Your task to perform on an android device: open chrome and create a bookmark for the current page Image 0: 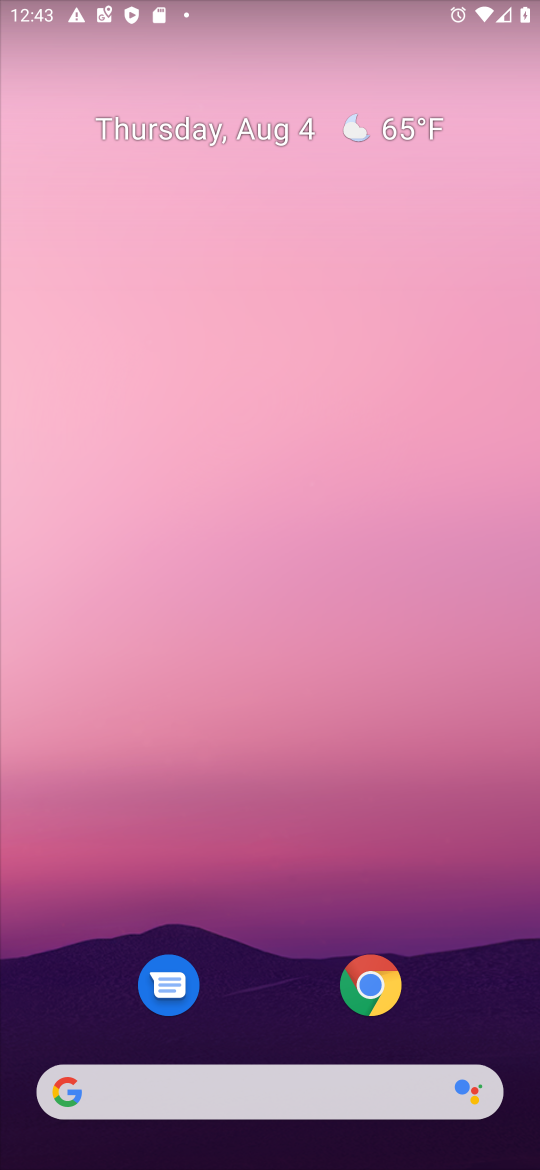
Step 0: click (384, 978)
Your task to perform on an android device: open chrome and create a bookmark for the current page Image 1: 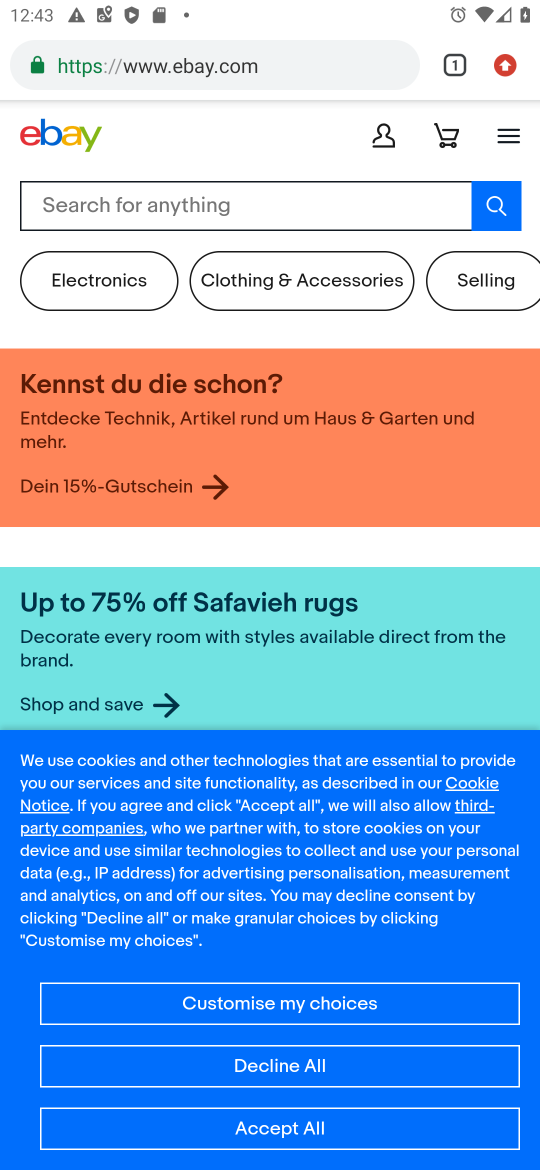
Step 1: click (506, 54)
Your task to perform on an android device: open chrome and create a bookmark for the current page Image 2: 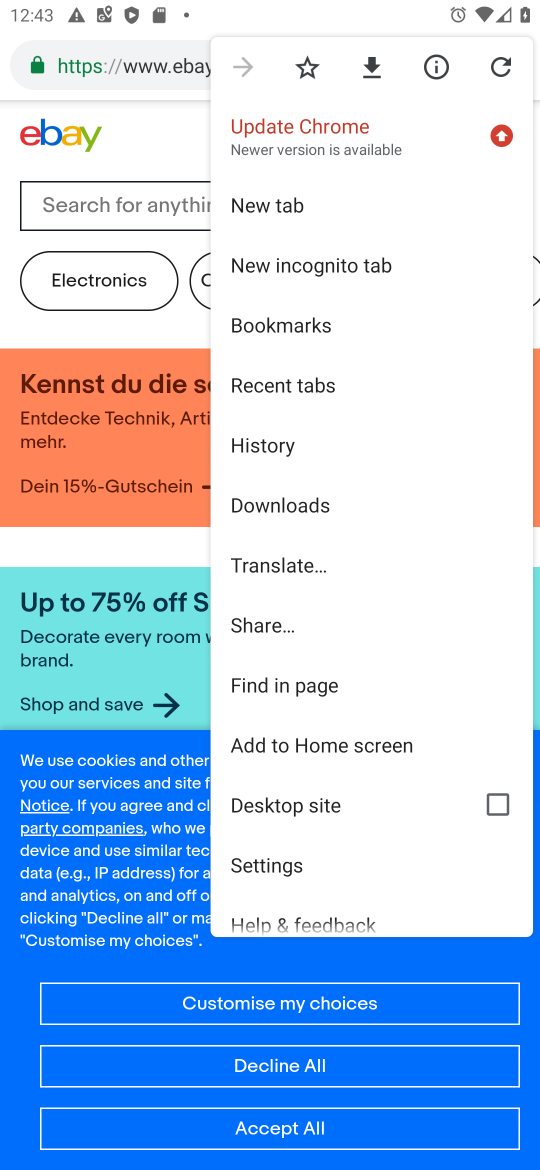
Step 2: click (309, 67)
Your task to perform on an android device: open chrome and create a bookmark for the current page Image 3: 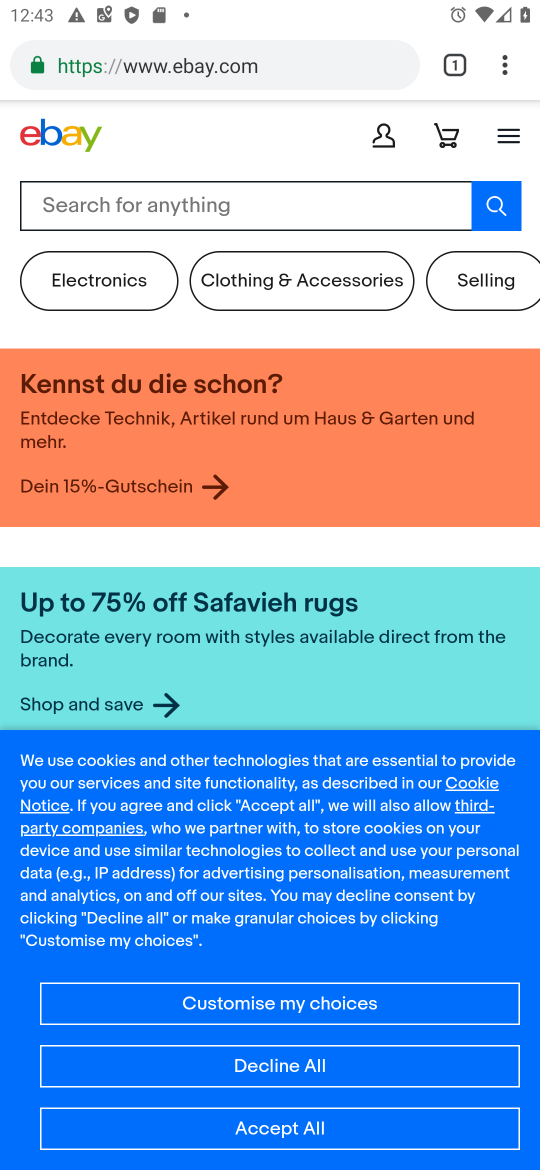
Step 3: click (503, 64)
Your task to perform on an android device: open chrome and create a bookmark for the current page Image 4: 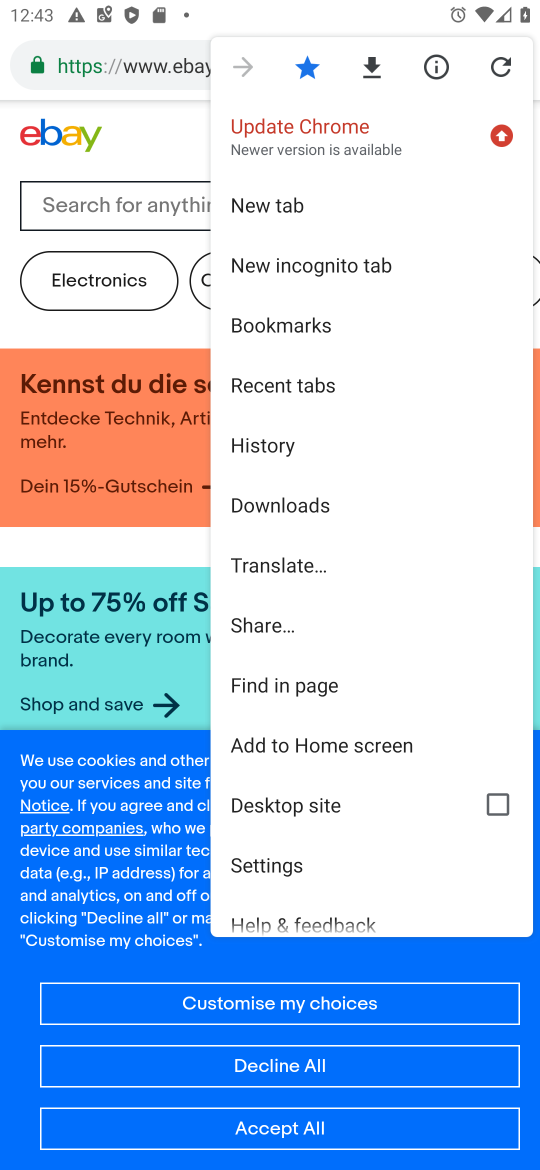
Step 4: task complete